Your task to perform on an android device: turn pop-ups on in chrome Image 0: 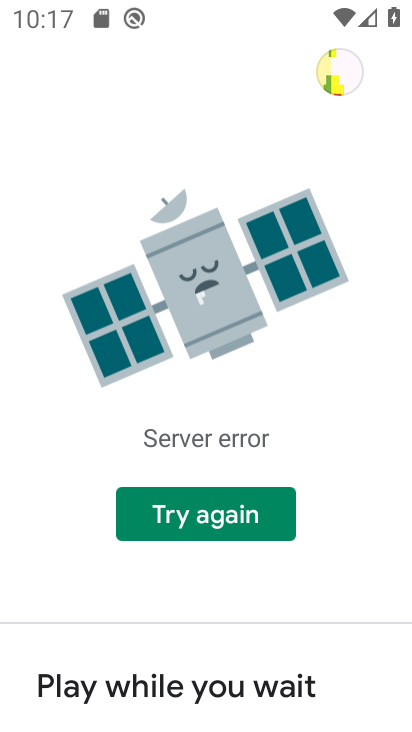
Step 0: press home button
Your task to perform on an android device: turn pop-ups on in chrome Image 1: 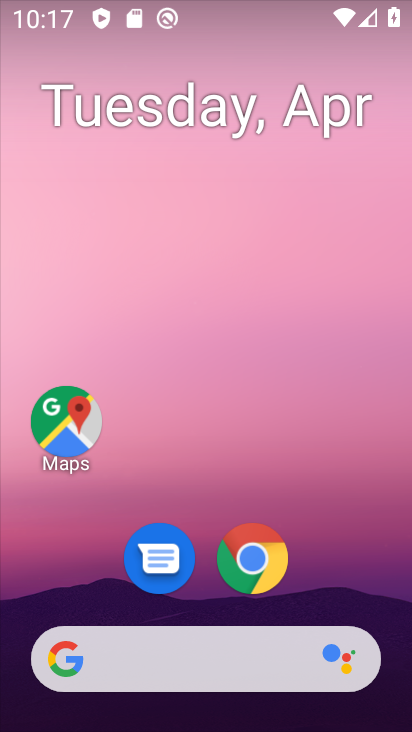
Step 1: click (262, 578)
Your task to perform on an android device: turn pop-ups on in chrome Image 2: 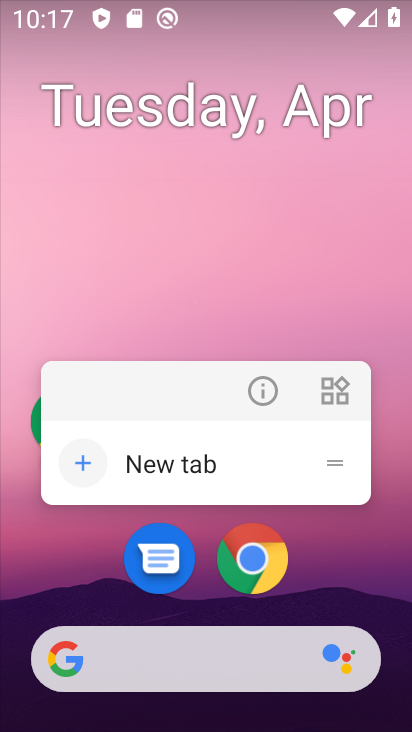
Step 2: click (256, 556)
Your task to perform on an android device: turn pop-ups on in chrome Image 3: 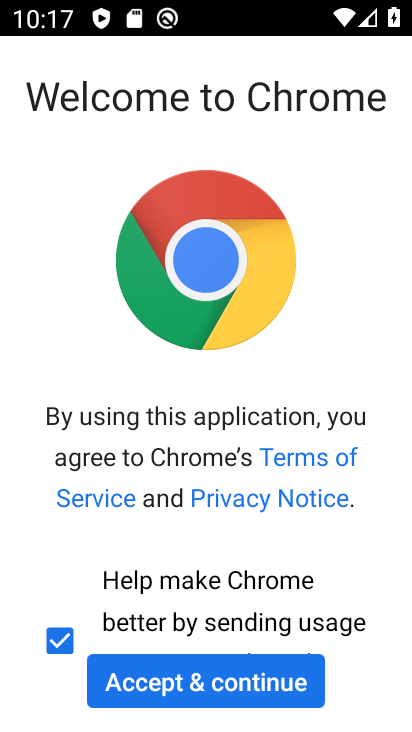
Step 3: click (230, 685)
Your task to perform on an android device: turn pop-ups on in chrome Image 4: 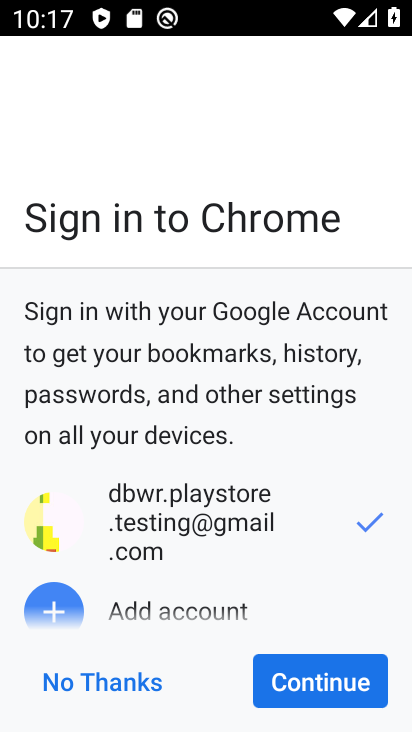
Step 4: click (266, 682)
Your task to perform on an android device: turn pop-ups on in chrome Image 5: 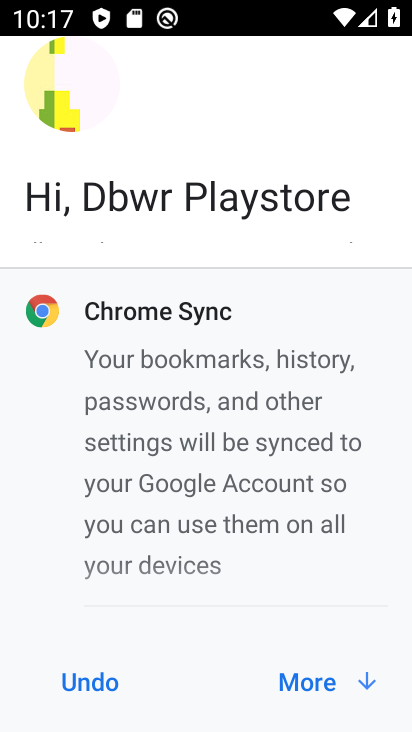
Step 5: click (296, 681)
Your task to perform on an android device: turn pop-ups on in chrome Image 6: 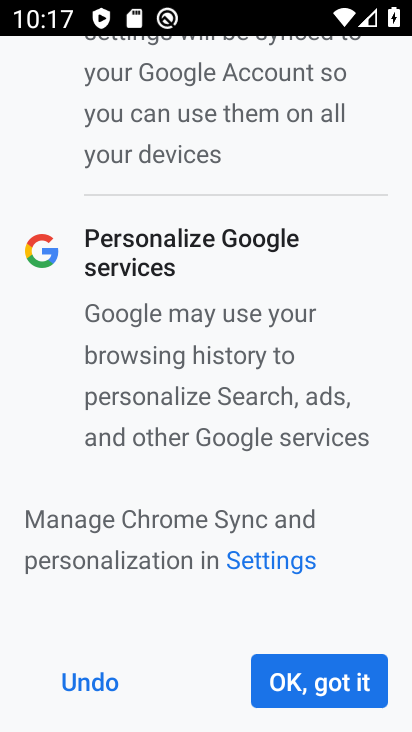
Step 6: click (296, 681)
Your task to perform on an android device: turn pop-ups on in chrome Image 7: 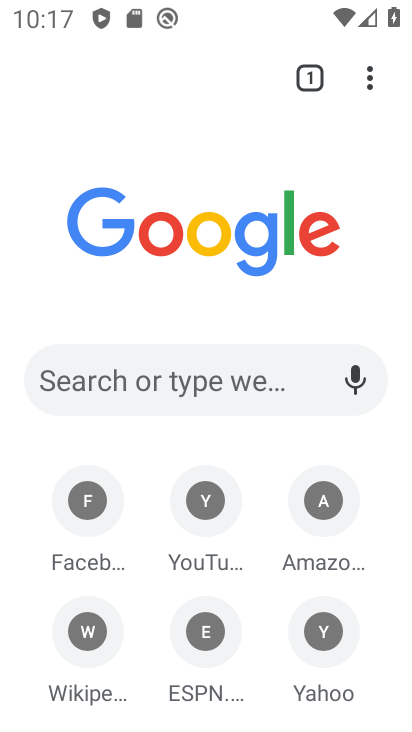
Step 7: click (368, 78)
Your task to perform on an android device: turn pop-ups on in chrome Image 8: 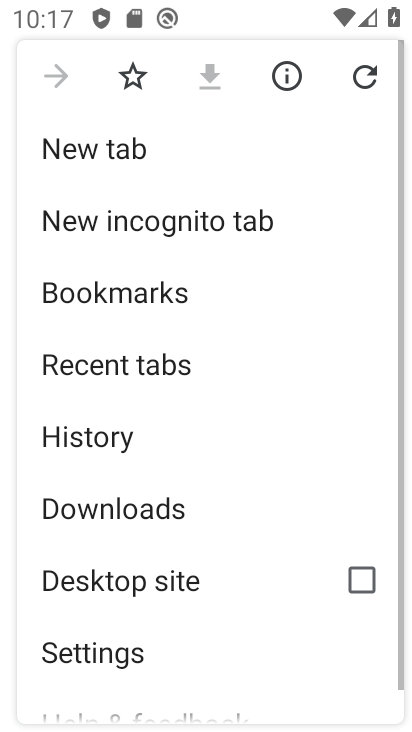
Step 8: click (139, 649)
Your task to perform on an android device: turn pop-ups on in chrome Image 9: 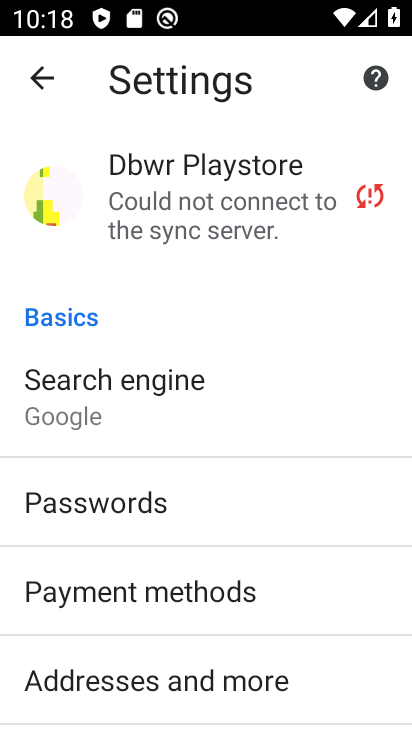
Step 9: drag from (134, 462) to (176, 306)
Your task to perform on an android device: turn pop-ups on in chrome Image 10: 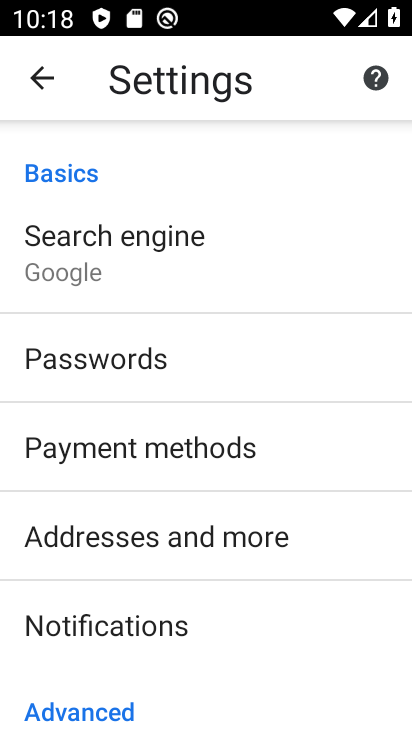
Step 10: drag from (125, 529) to (147, 250)
Your task to perform on an android device: turn pop-ups on in chrome Image 11: 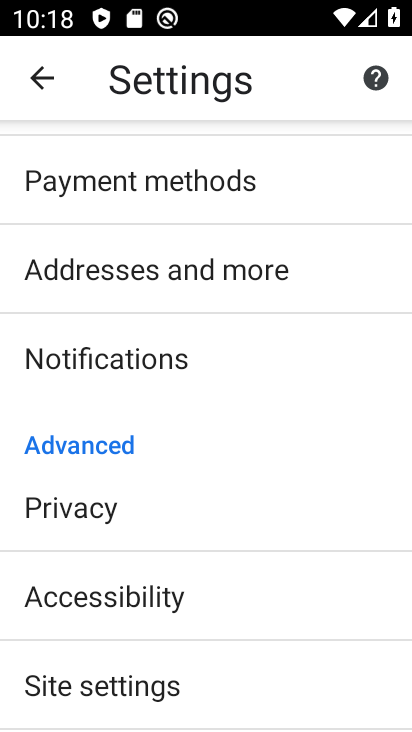
Step 11: click (78, 688)
Your task to perform on an android device: turn pop-ups on in chrome Image 12: 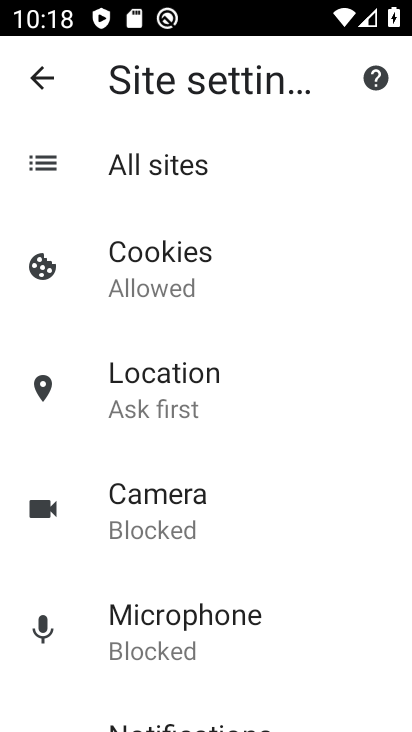
Step 12: drag from (186, 567) to (217, 302)
Your task to perform on an android device: turn pop-ups on in chrome Image 13: 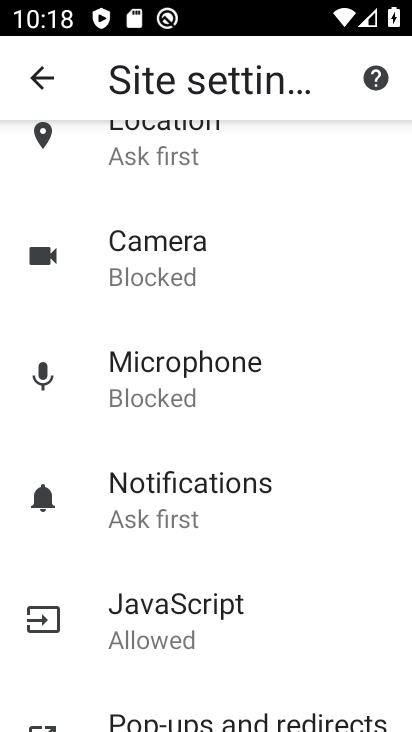
Step 13: drag from (180, 616) to (219, 281)
Your task to perform on an android device: turn pop-ups on in chrome Image 14: 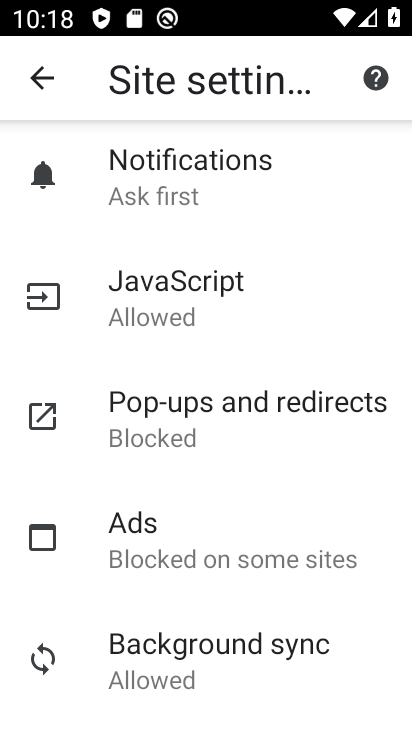
Step 14: click (176, 446)
Your task to perform on an android device: turn pop-ups on in chrome Image 15: 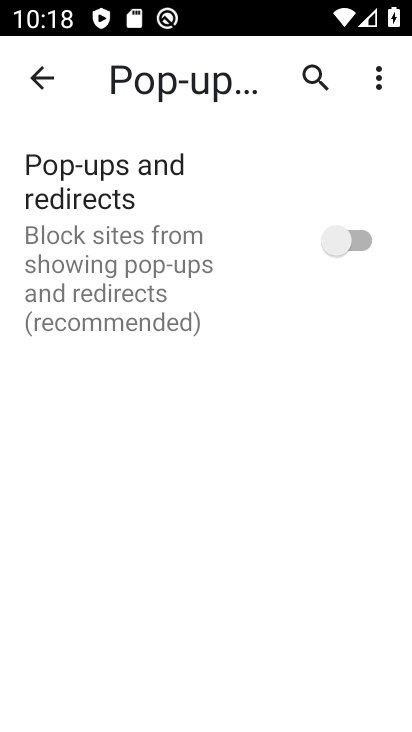
Step 15: click (342, 237)
Your task to perform on an android device: turn pop-ups on in chrome Image 16: 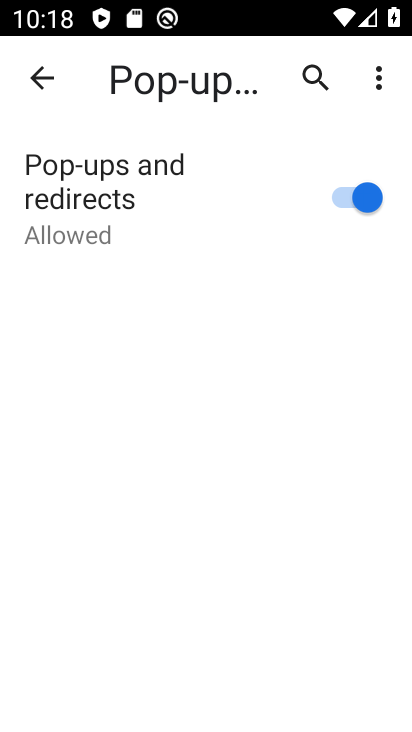
Step 16: task complete